Your task to perform on an android device: Open calendar and show me the third week of next month Image 0: 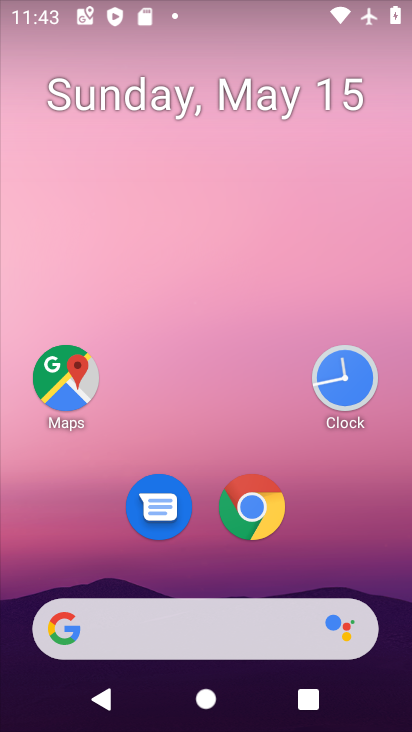
Step 0: drag from (297, 567) to (297, 71)
Your task to perform on an android device: Open calendar and show me the third week of next month Image 1: 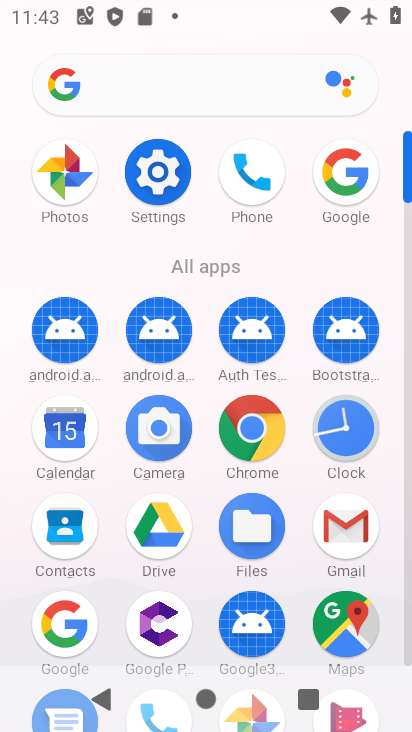
Step 1: click (44, 435)
Your task to perform on an android device: Open calendar and show me the third week of next month Image 2: 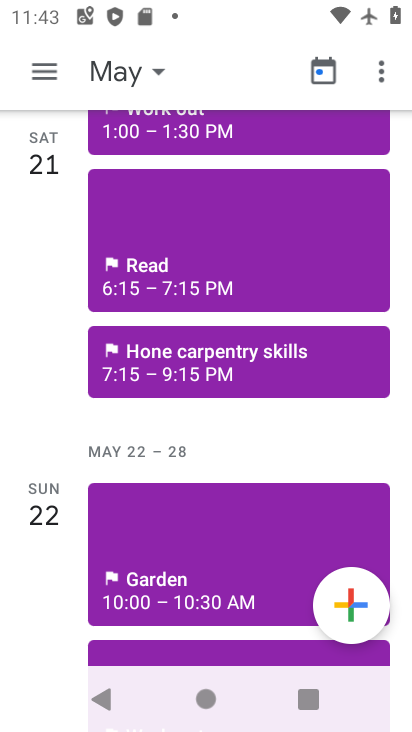
Step 2: click (118, 67)
Your task to perform on an android device: Open calendar and show me the third week of next month Image 3: 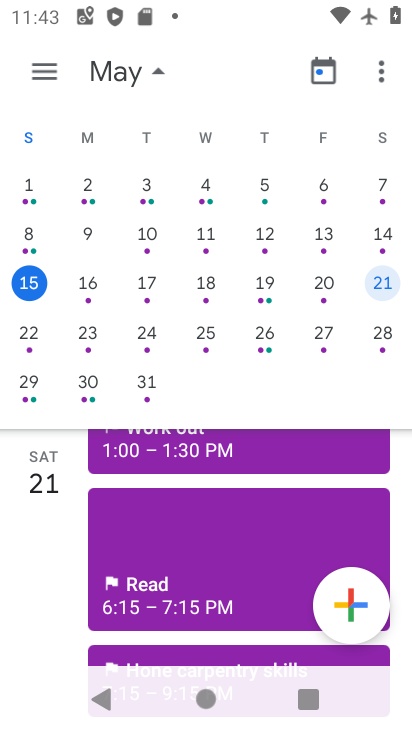
Step 3: drag from (303, 318) to (12, 329)
Your task to perform on an android device: Open calendar and show me the third week of next month Image 4: 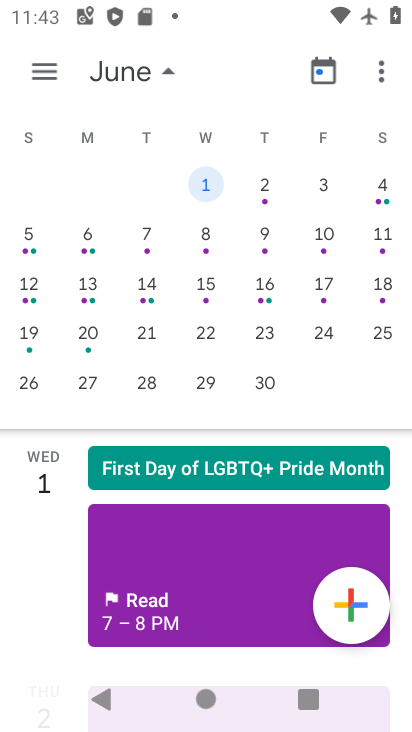
Step 4: click (33, 299)
Your task to perform on an android device: Open calendar and show me the third week of next month Image 5: 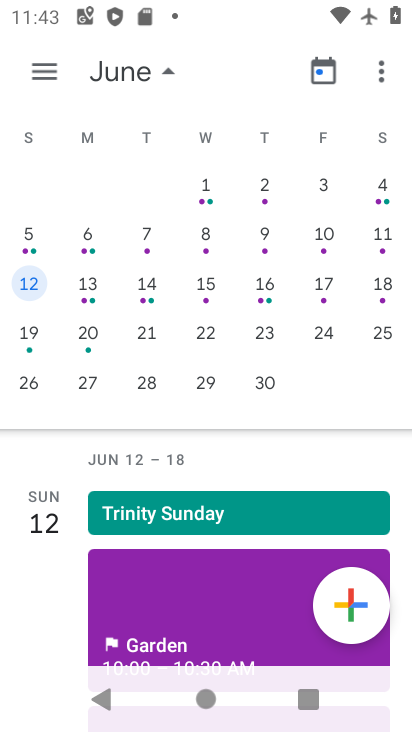
Step 5: click (82, 296)
Your task to perform on an android device: Open calendar and show me the third week of next month Image 6: 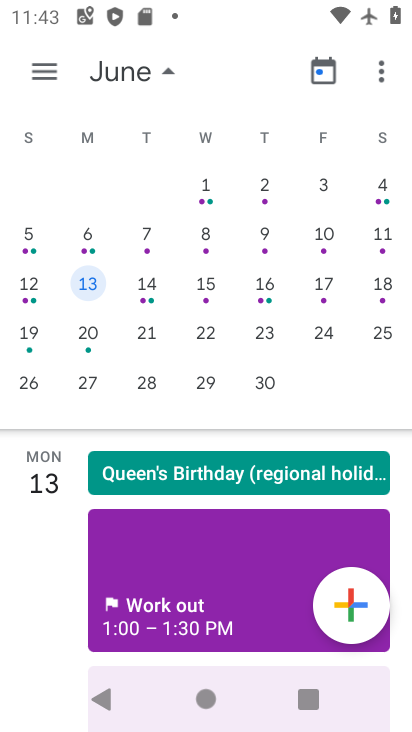
Step 6: click (138, 298)
Your task to perform on an android device: Open calendar and show me the third week of next month Image 7: 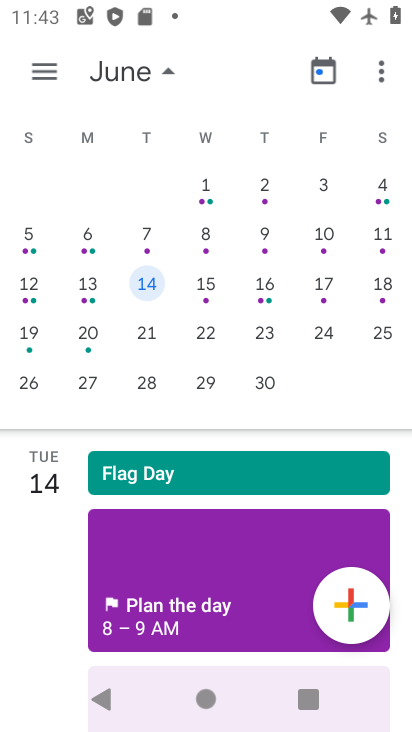
Step 7: click (222, 295)
Your task to perform on an android device: Open calendar and show me the third week of next month Image 8: 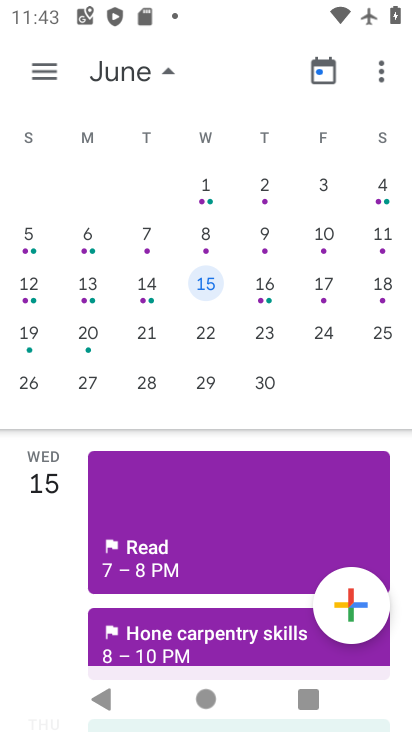
Step 8: click (276, 301)
Your task to perform on an android device: Open calendar and show me the third week of next month Image 9: 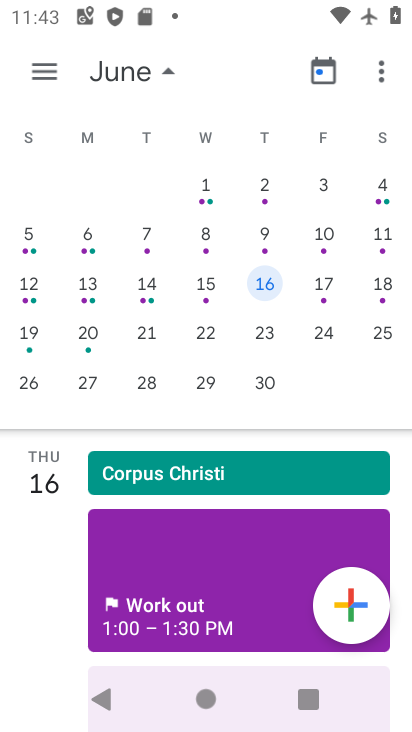
Step 9: click (317, 302)
Your task to perform on an android device: Open calendar and show me the third week of next month Image 10: 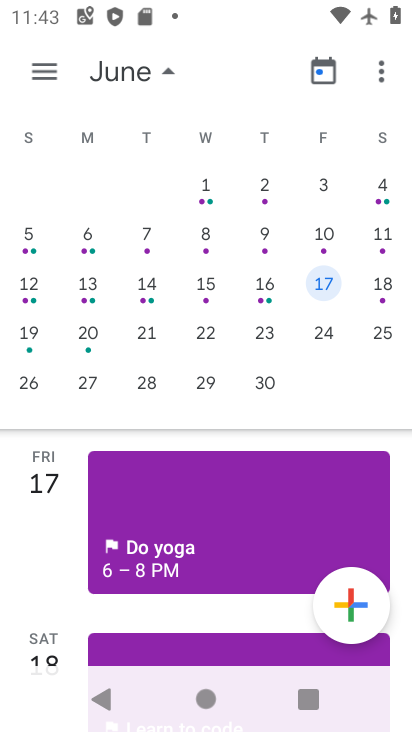
Step 10: click (384, 308)
Your task to perform on an android device: Open calendar and show me the third week of next month Image 11: 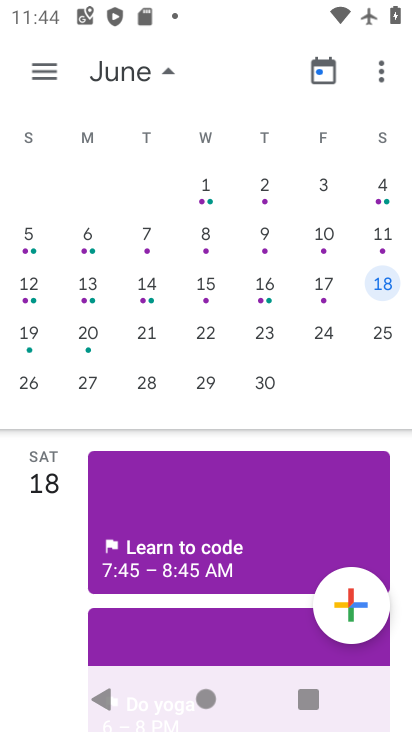
Step 11: task complete